Your task to perform on an android device: turn off wifi Image 0: 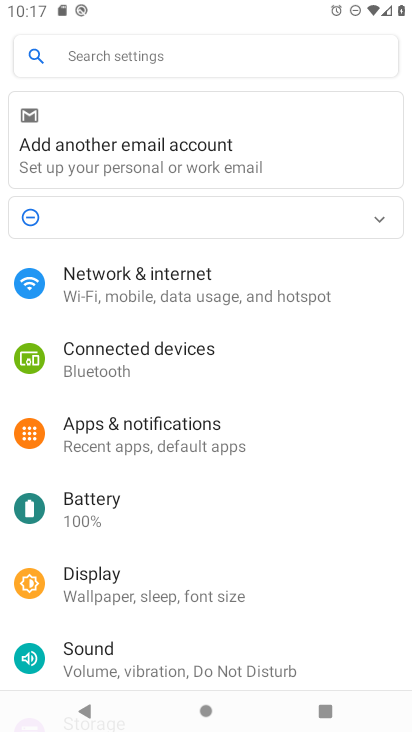
Step 0: press home button
Your task to perform on an android device: turn off wifi Image 1: 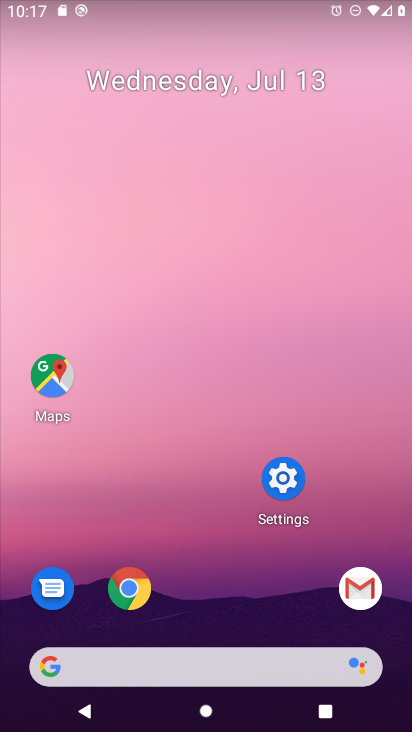
Step 1: click (281, 480)
Your task to perform on an android device: turn off wifi Image 2: 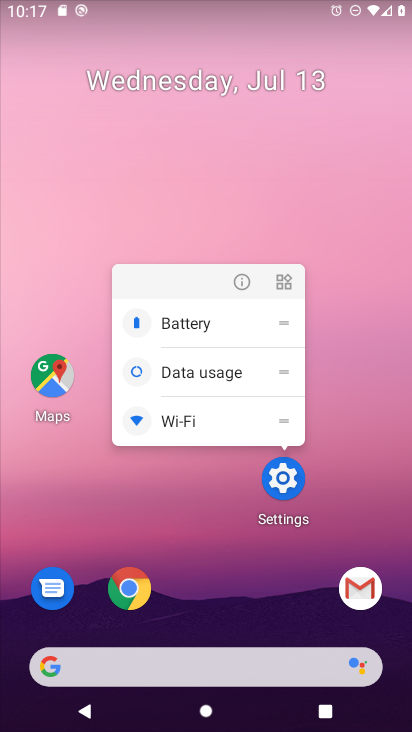
Step 2: click (279, 472)
Your task to perform on an android device: turn off wifi Image 3: 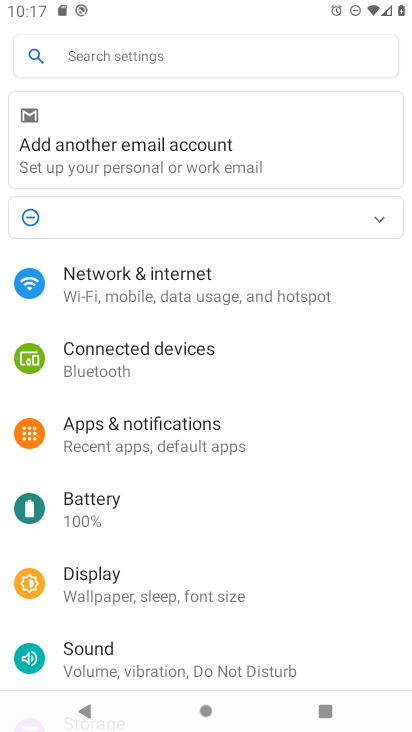
Step 3: click (150, 277)
Your task to perform on an android device: turn off wifi Image 4: 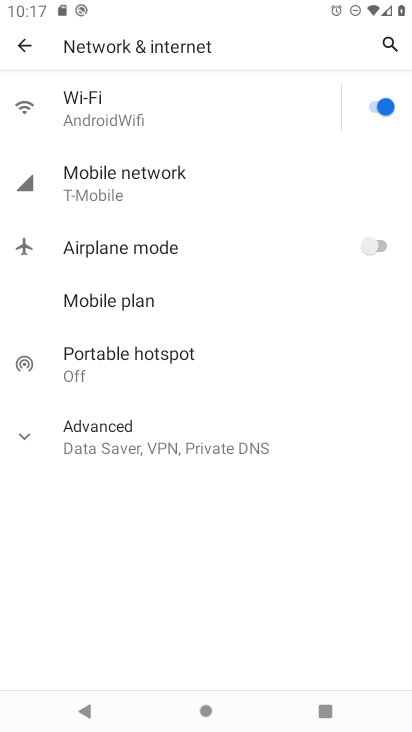
Step 4: click (375, 102)
Your task to perform on an android device: turn off wifi Image 5: 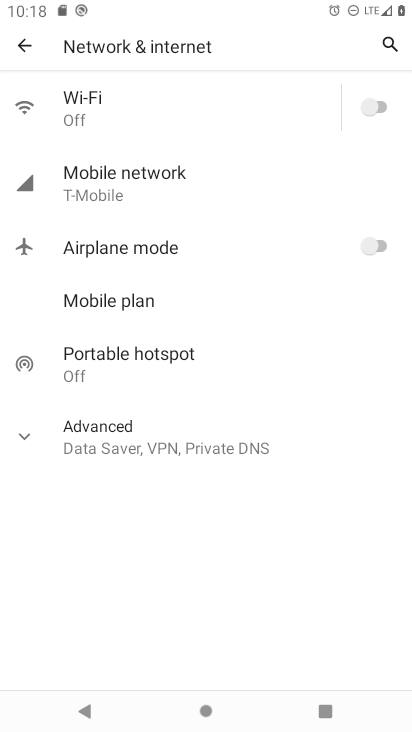
Step 5: task complete